Your task to perform on an android device: Open Google Chrome Image 0: 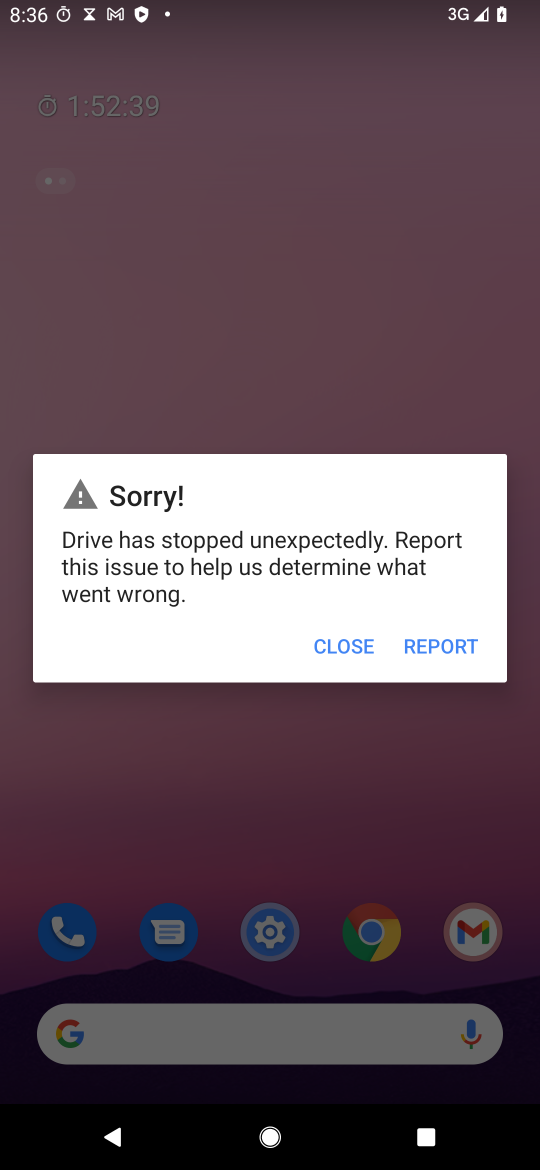
Step 0: press home button
Your task to perform on an android device: Open Google Chrome Image 1: 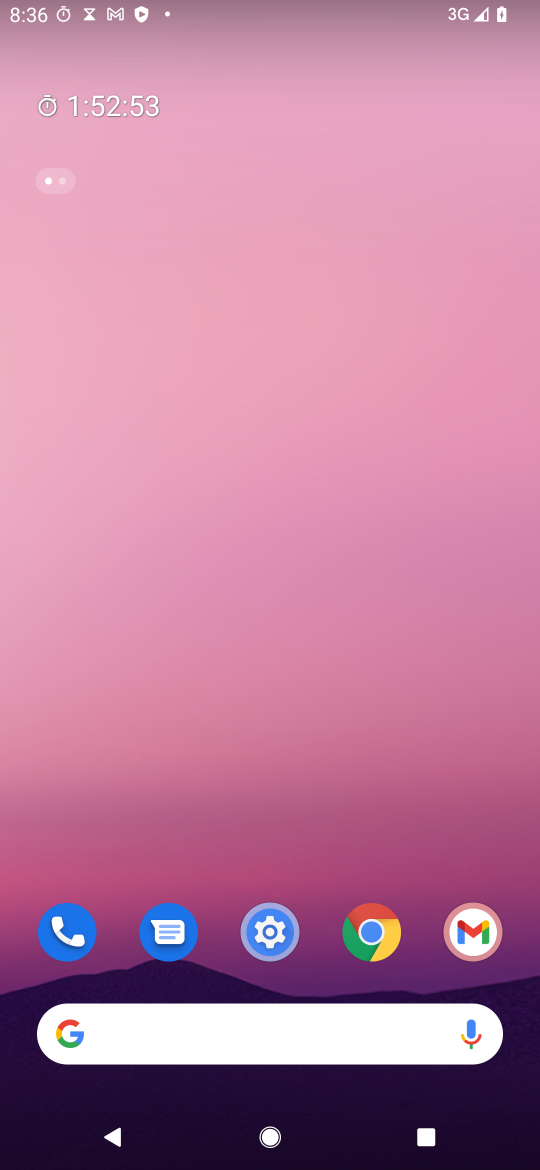
Step 1: drag from (292, 827) to (502, 5)
Your task to perform on an android device: Open Google Chrome Image 2: 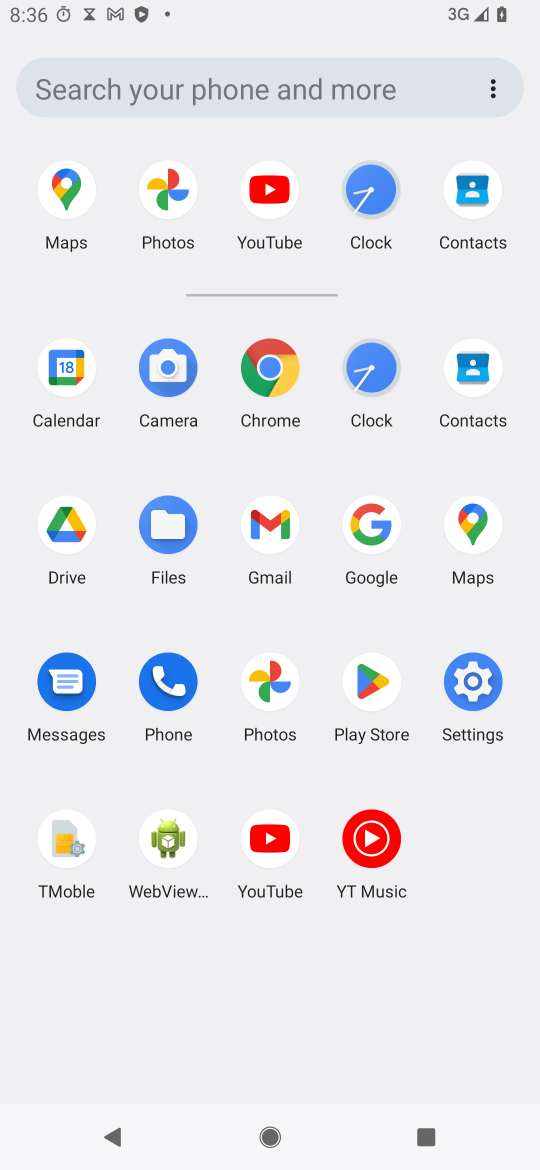
Step 2: click (273, 362)
Your task to perform on an android device: Open Google Chrome Image 3: 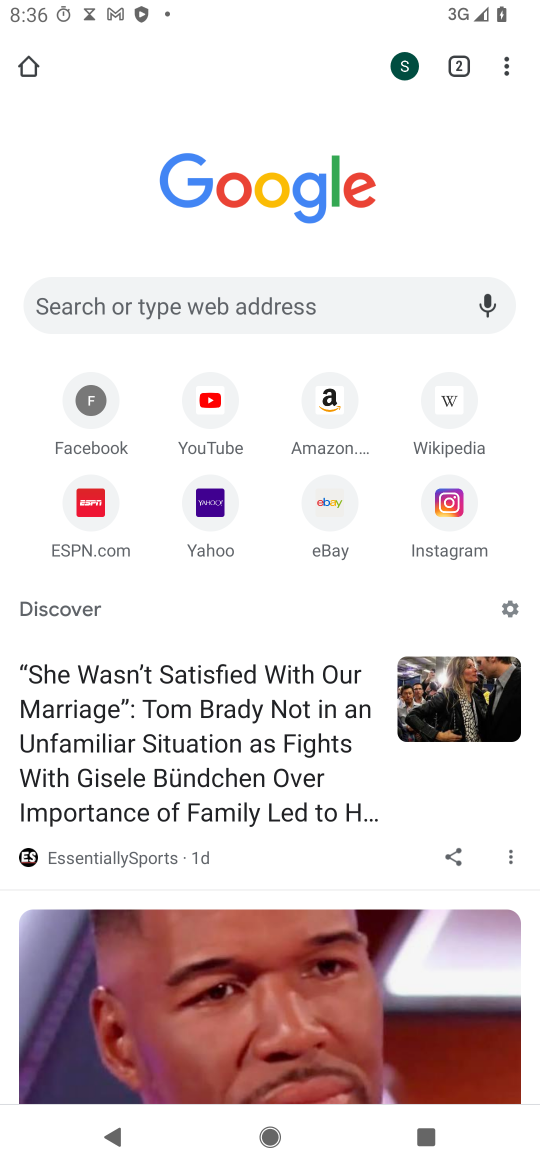
Step 3: task complete